Your task to perform on an android device: What's the weather? Image 0: 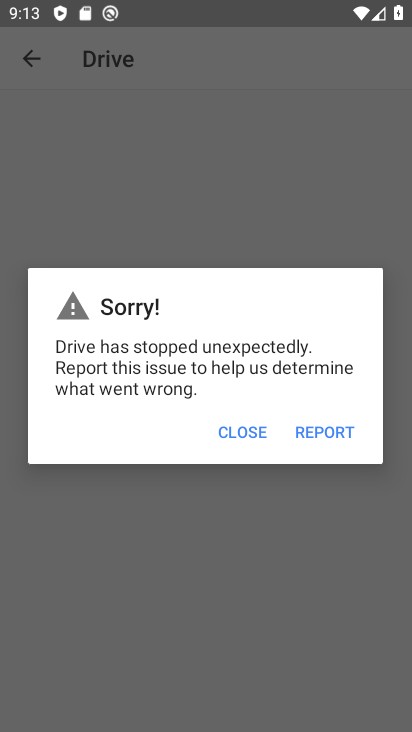
Step 0: press home button
Your task to perform on an android device: What's the weather? Image 1: 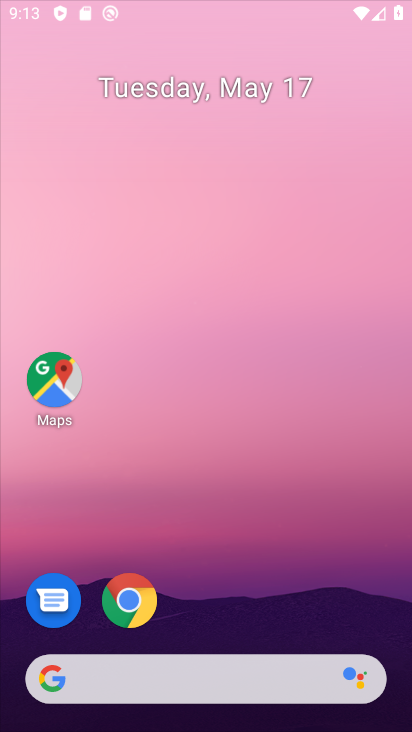
Step 1: press home button
Your task to perform on an android device: What's the weather? Image 2: 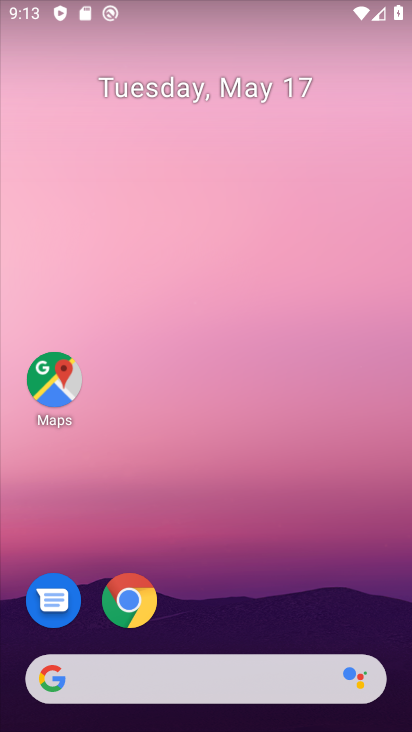
Step 2: drag from (393, 514) to (375, 163)
Your task to perform on an android device: What's the weather? Image 3: 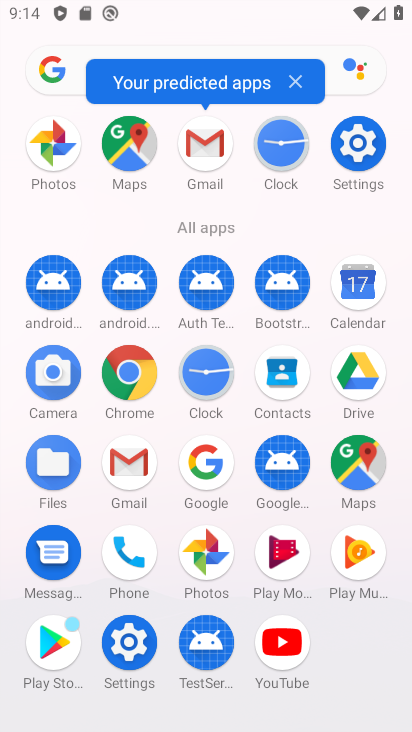
Step 3: click (198, 461)
Your task to perform on an android device: What's the weather? Image 4: 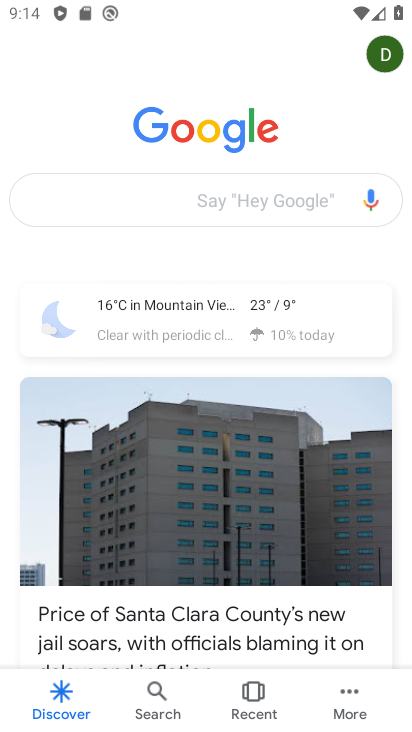
Step 4: click (169, 300)
Your task to perform on an android device: What's the weather? Image 5: 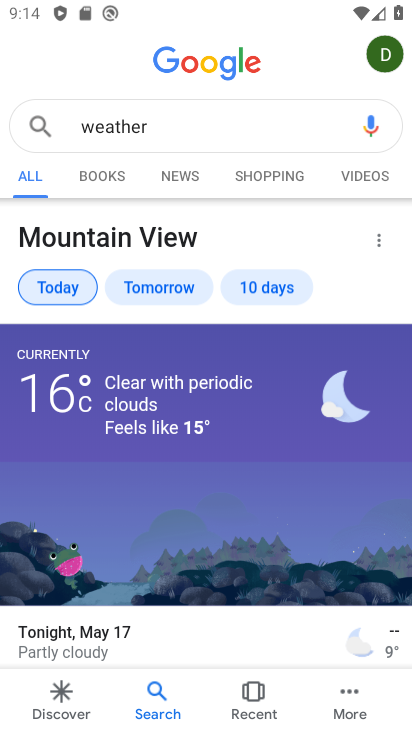
Step 5: task complete